Your task to perform on an android device: Open Youtube and go to "Your channel" Image 0: 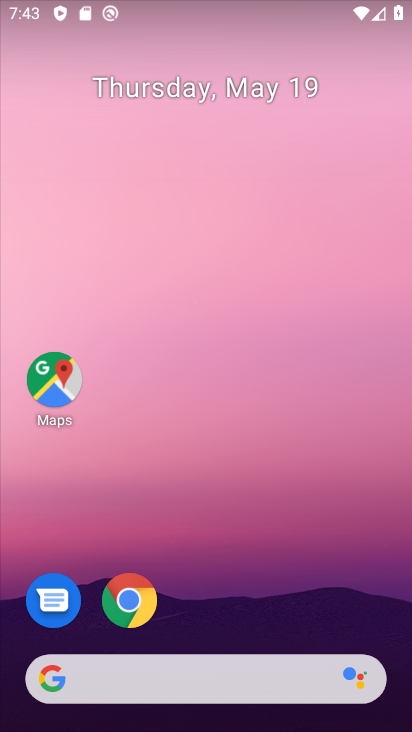
Step 0: drag from (263, 607) to (278, 73)
Your task to perform on an android device: Open Youtube and go to "Your channel" Image 1: 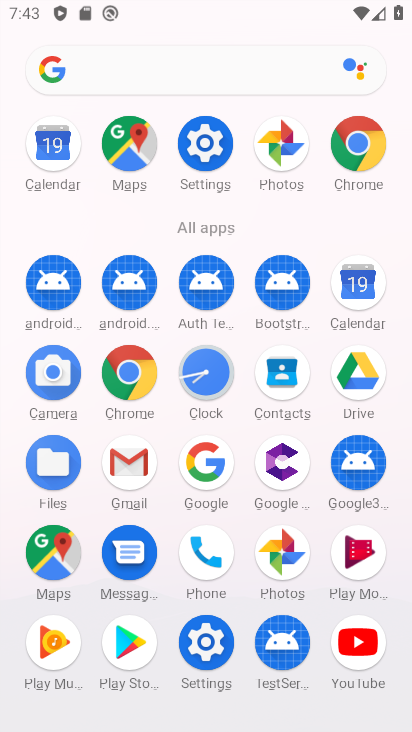
Step 1: click (375, 653)
Your task to perform on an android device: Open Youtube and go to "Your channel" Image 2: 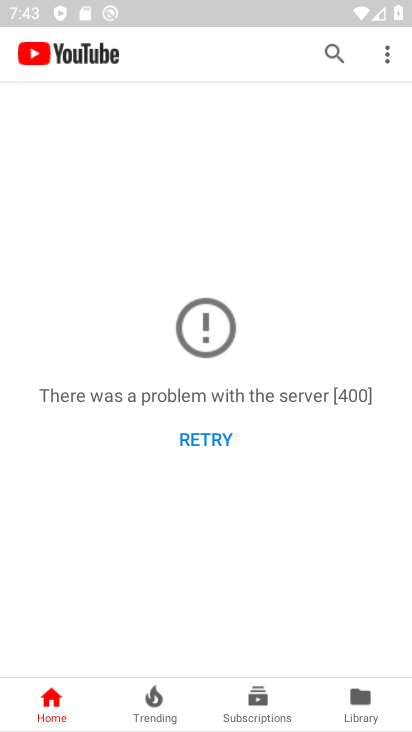
Step 2: click (211, 450)
Your task to perform on an android device: Open Youtube and go to "Your channel" Image 3: 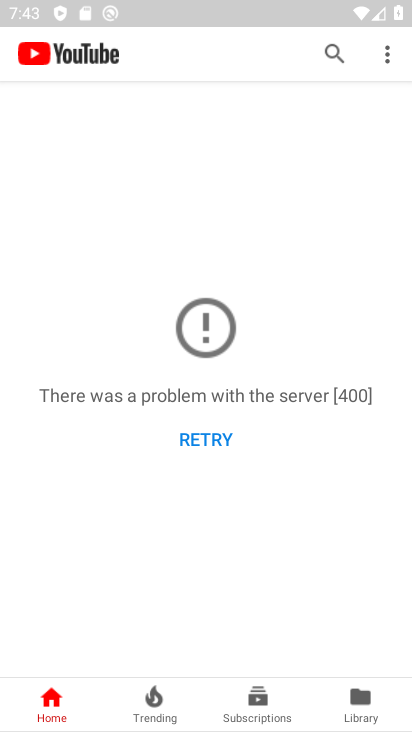
Step 3: click (221, 426)
Your task to perform on an android device: Open Youtube and go to "Your channel" Image 4: 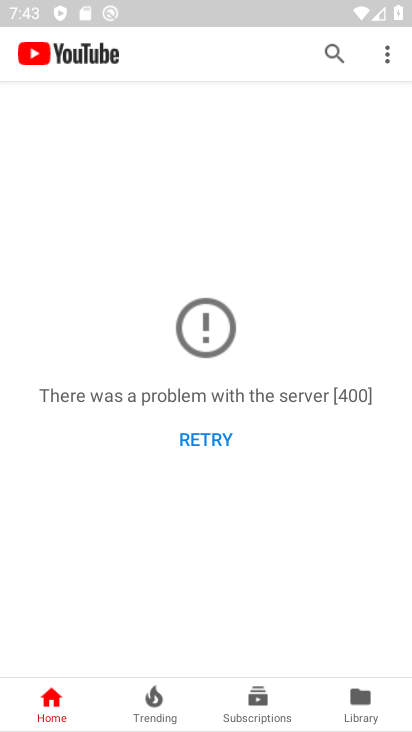
Step 4: click (384, 69)
Your task to perform on an android device: Open Youtube and go to "Your channel" Image 5: 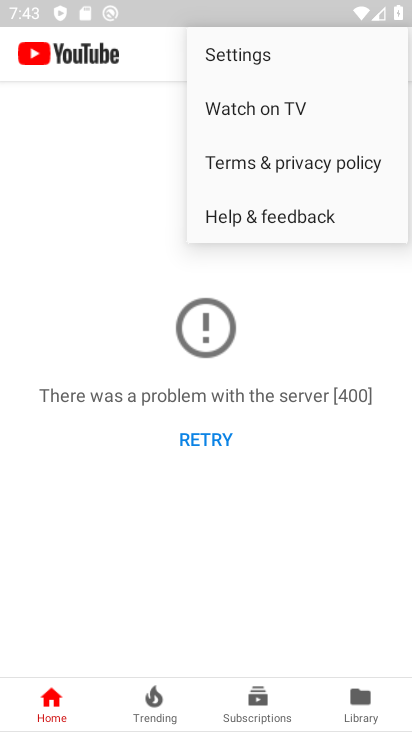
Step 5: click (313, 59)
Your task to perform on an android device: Open Youtube and go to "Your channel" Image 6: 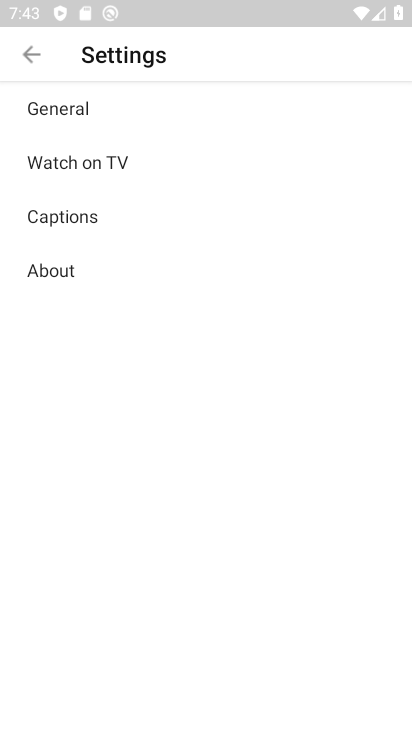
Step 6: click (41, 50)
Your task to perform on an android device: Open Youtube and go to "Your channel" Image 7: 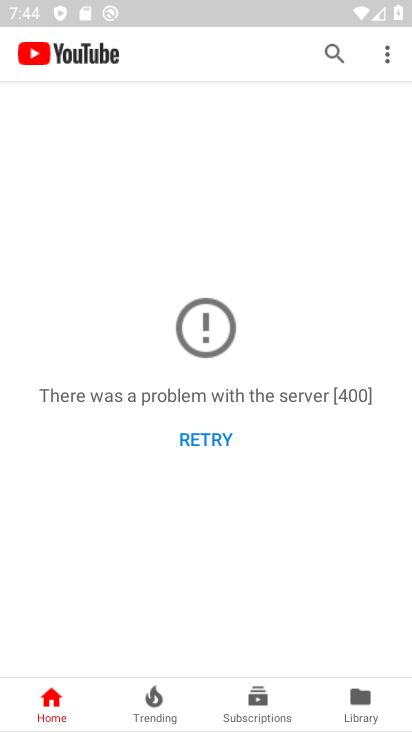
Step 7: click (355, 706)
Your task to perform on an android device: Open Youtube and go to "Your channel" Image 8: 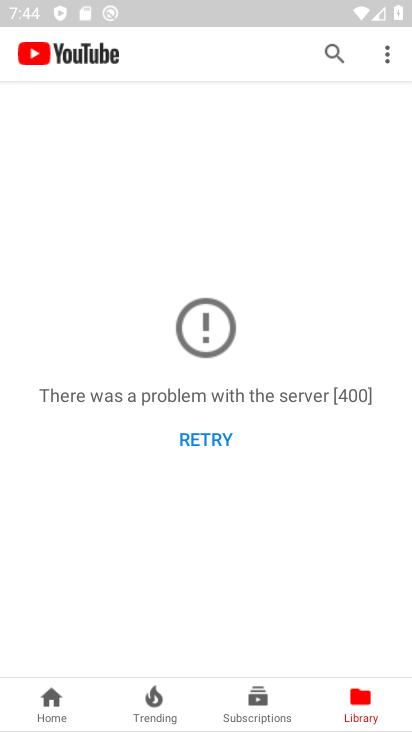
Step 8: task complete